Your task to perform on an android device: delete browsing data in the chrome app Image 0: 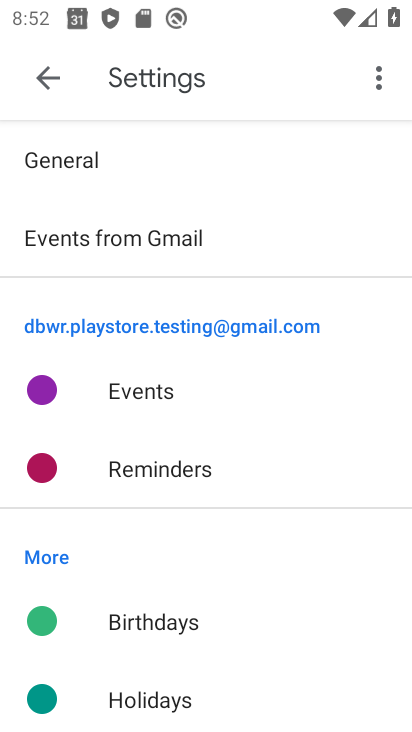
Step 0: press back button
Your task to perform on an android device: delete browsing data in the chrome app Image 1: 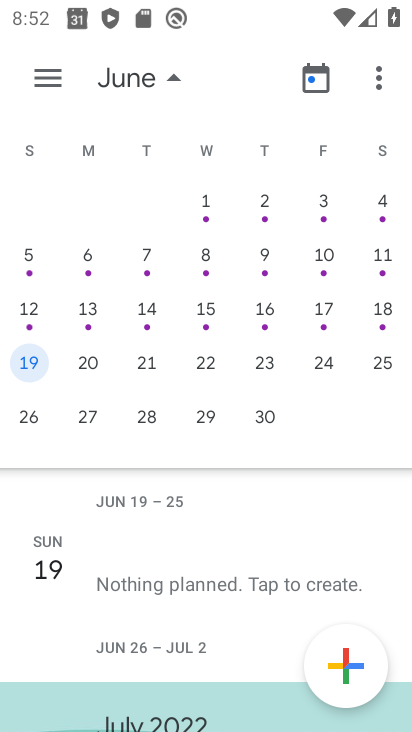
Step 1: press back button
Your task to perform on an android device: delete browsing data in the chrome app Image 2: 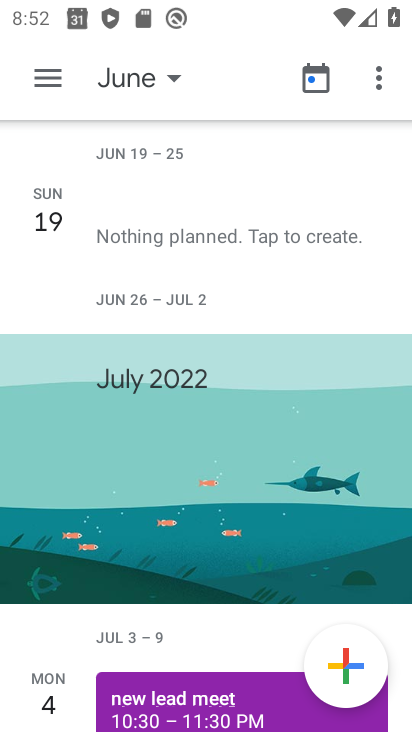
Step 2: press back button
Your task to perform on an android device: delete browsing data in the chrome app Image 3: 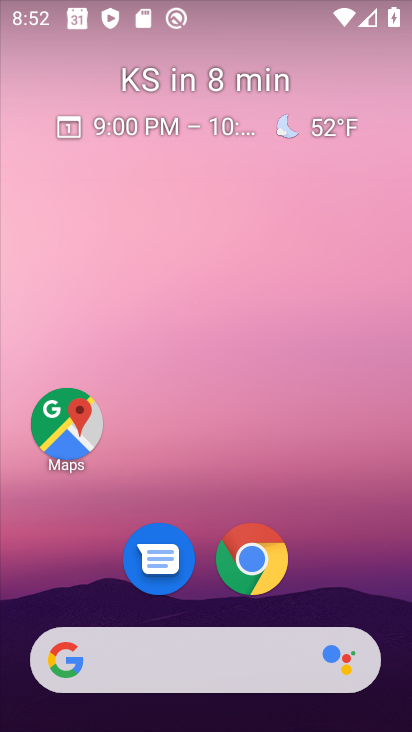
Step 3: click (250, 556)
Your task to perform on an android device: delete browsing data in the chrome app Image 4: 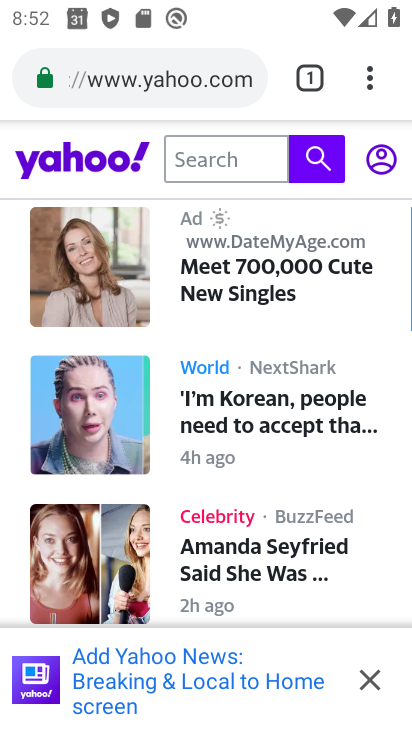
Step 4: task complete